Your task to perform on an android device: open app "YouTube Kids" (install if not already installed) and go to login screen Image 0: 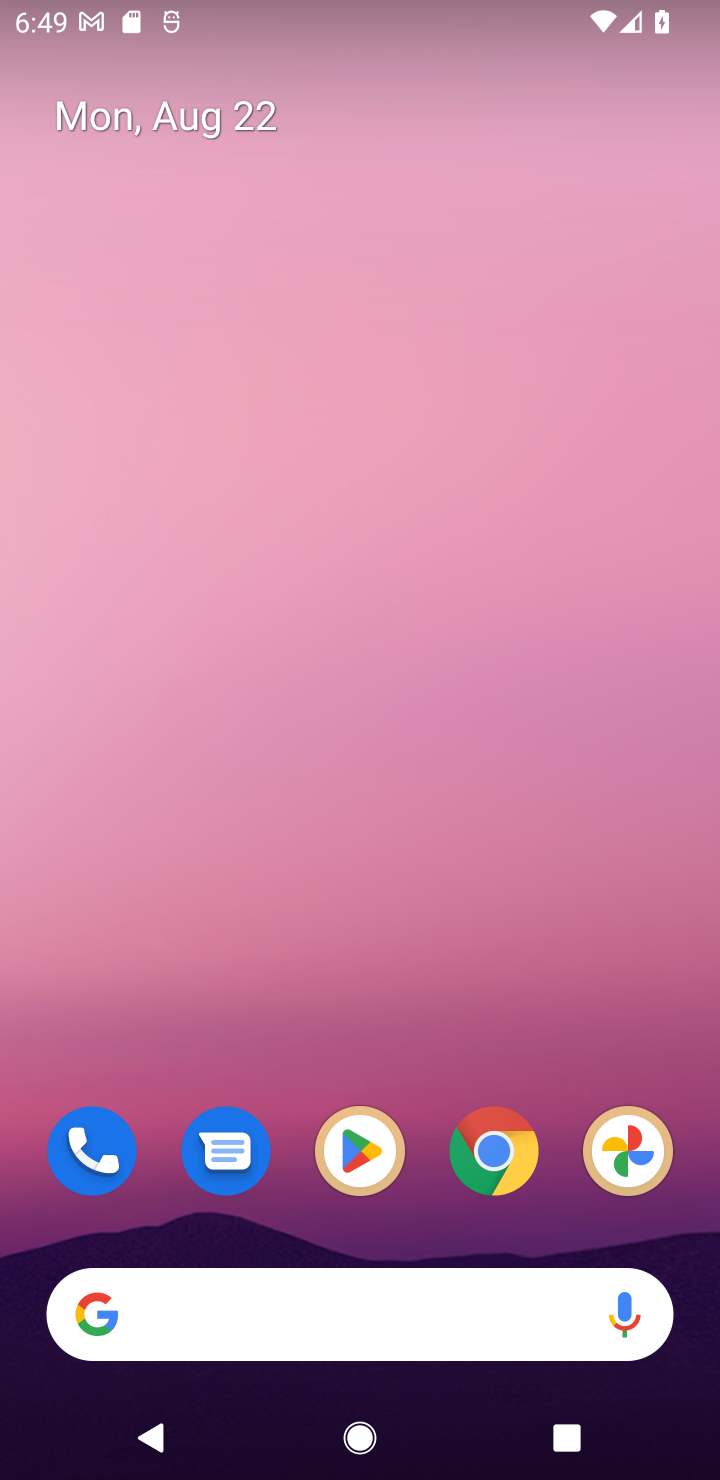
Step 0: click (366, 1149)
Your task to perform on an android device: open app "YouTube Kids" (install if not already installed) and go to login screen Image 1: 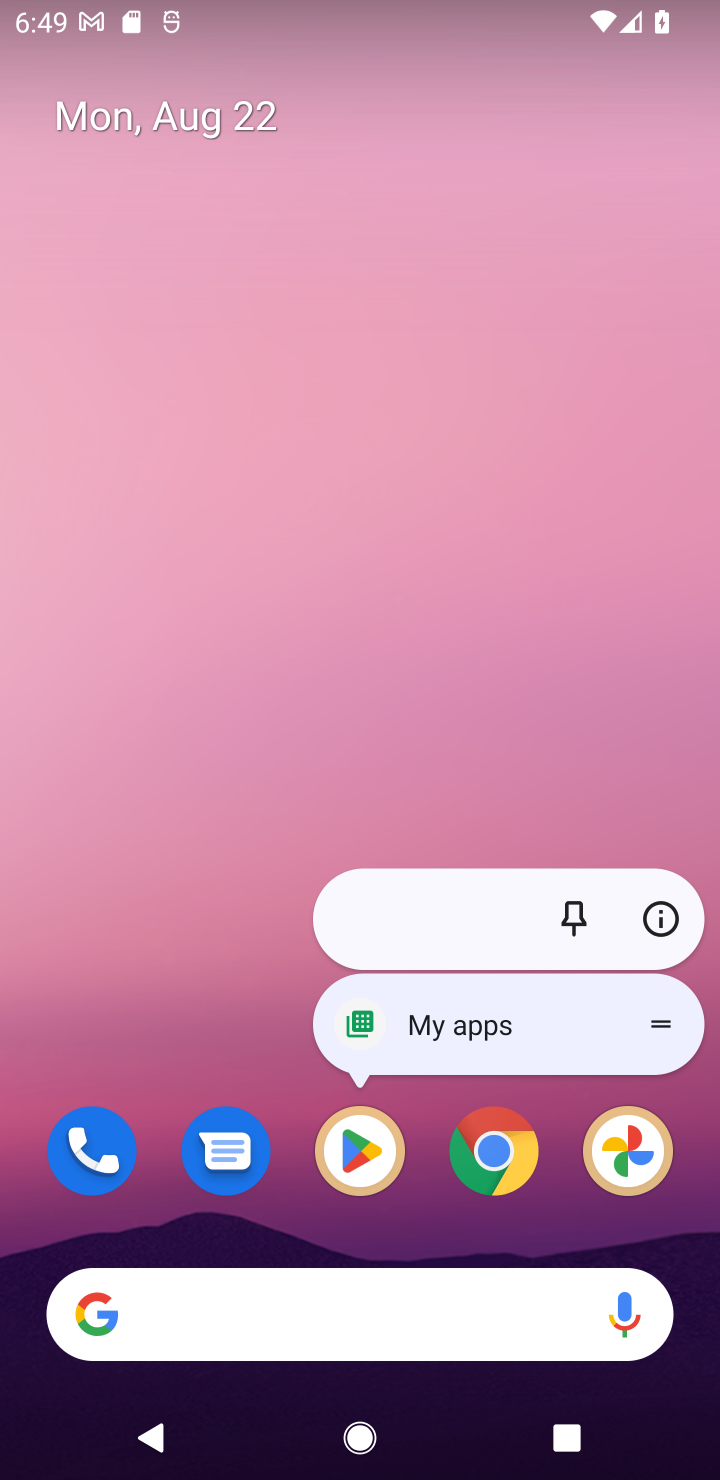
Step 1: click (363, 1153)
Your task to perform on an android device: open app "YouTube Kids" (install if not already installed) and go to login screen Image 2: 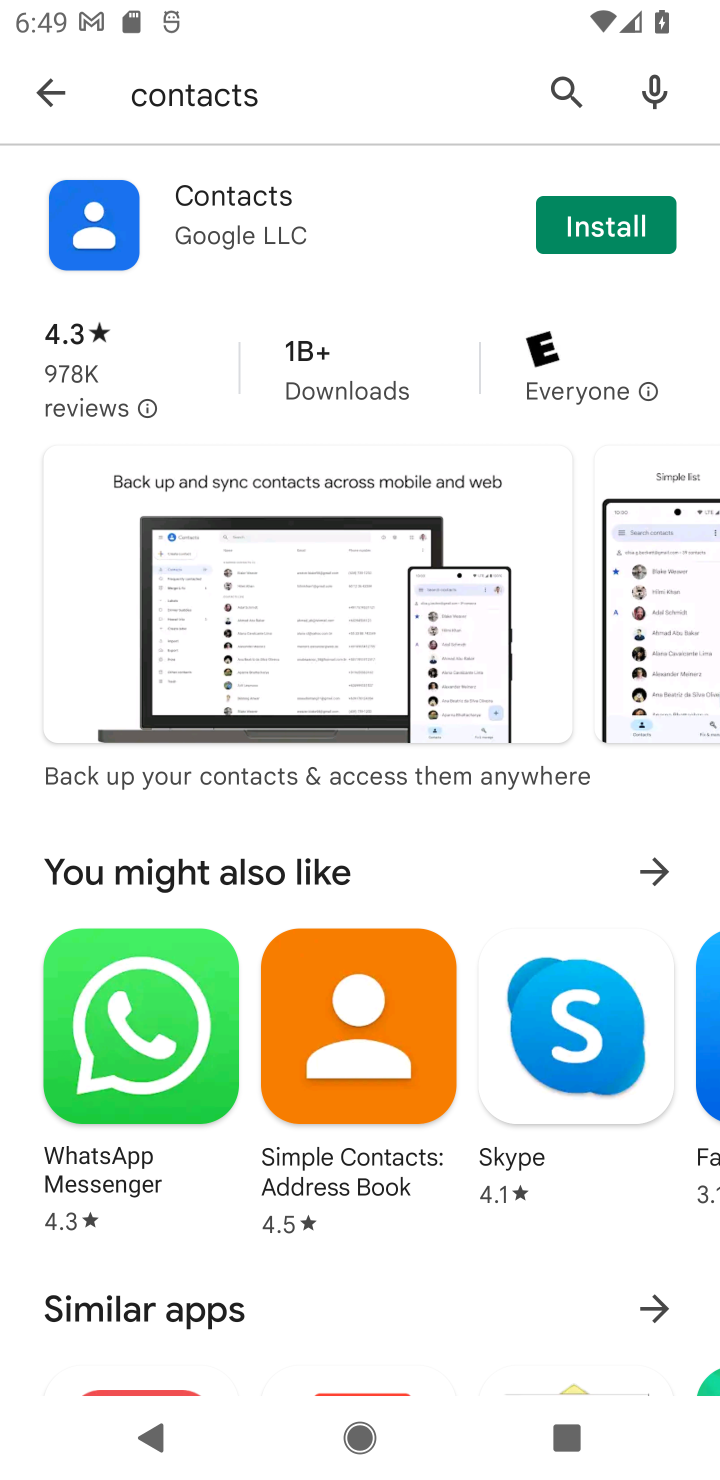
Step 2: click (560, 74)
Your task to perform on an android device: open app "YouTube Kids" (install if not already installed) and go to login screen Image 3: 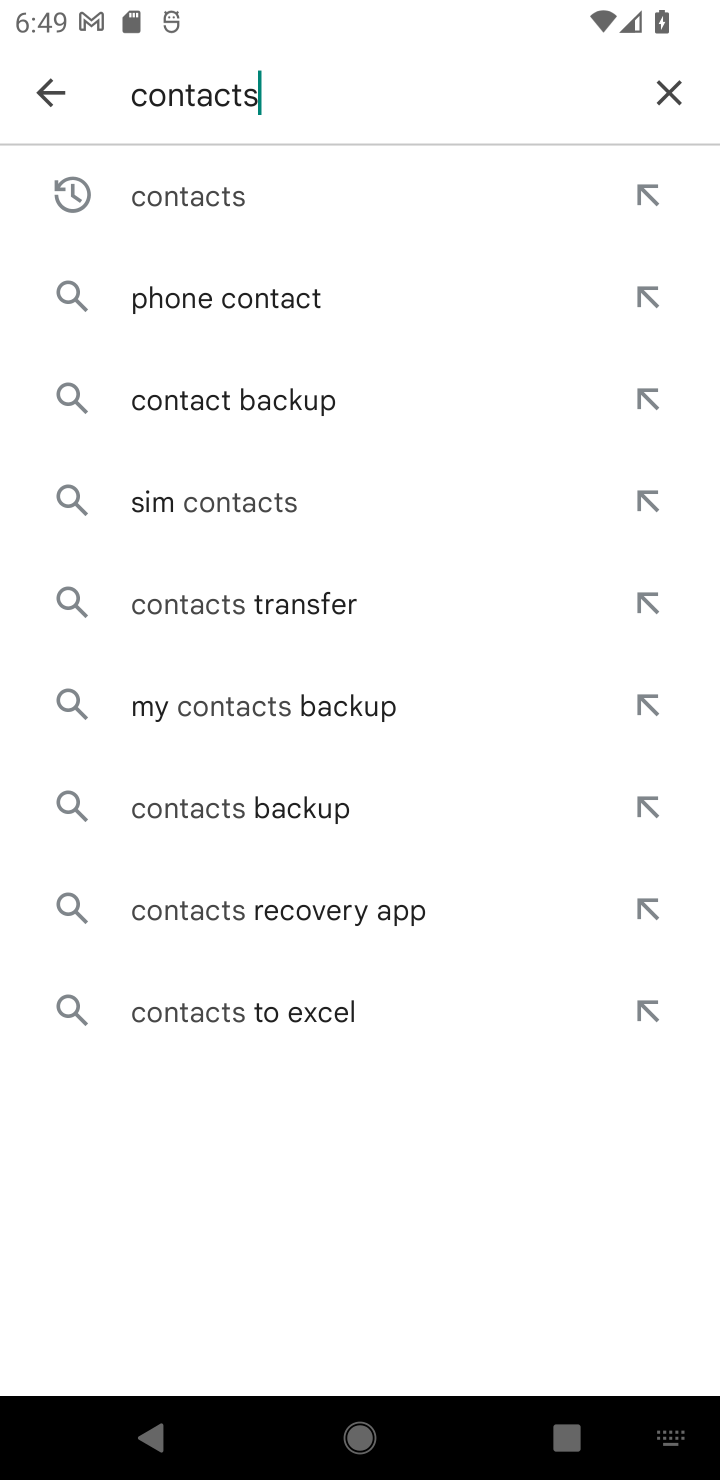
Step 3: click (661, 74)
Your task to perform on an android device: open app "YouTube Kids" (install if not already installed) and go to login screen Image 4: 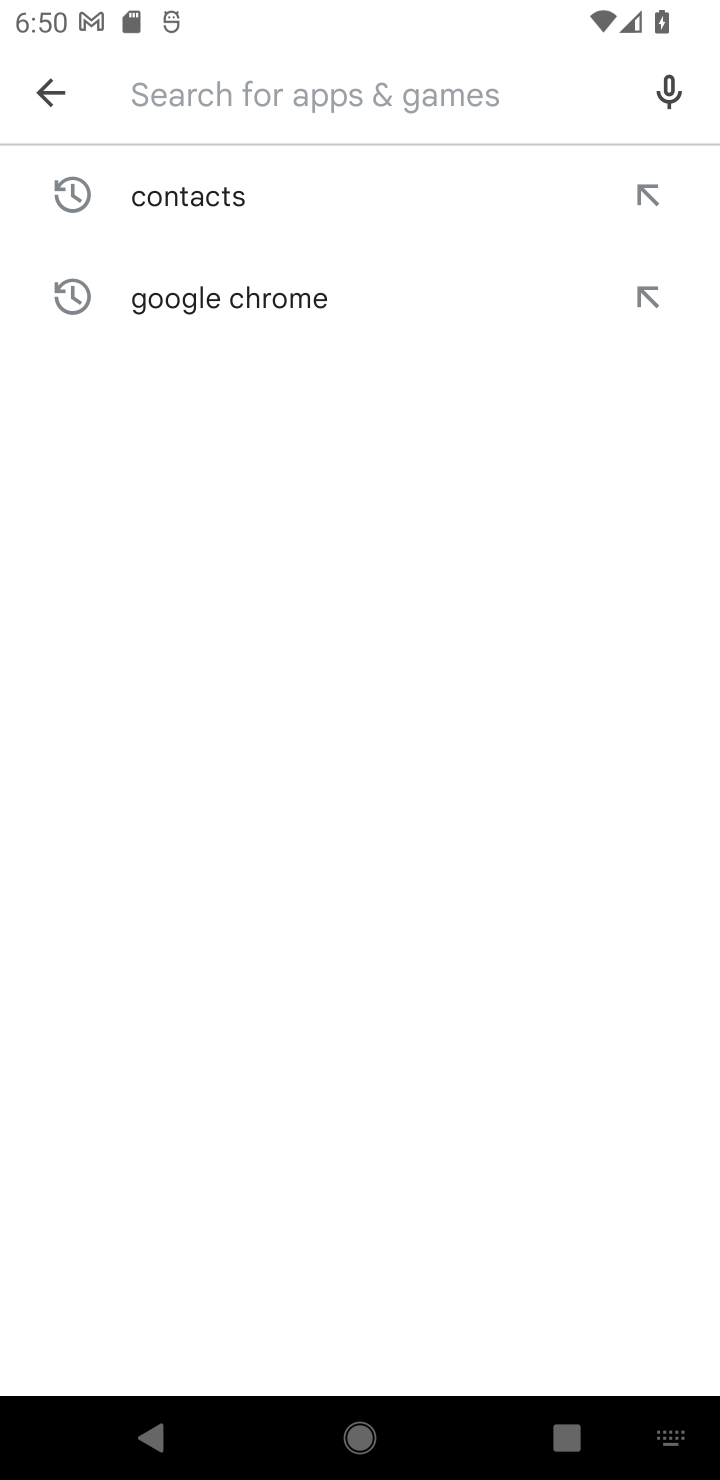
Step 4: type "YouTube Kids"
Your task to perform on an android device: open app "YouTube Kids" (install if not already installed) and go to login screen Image 5: 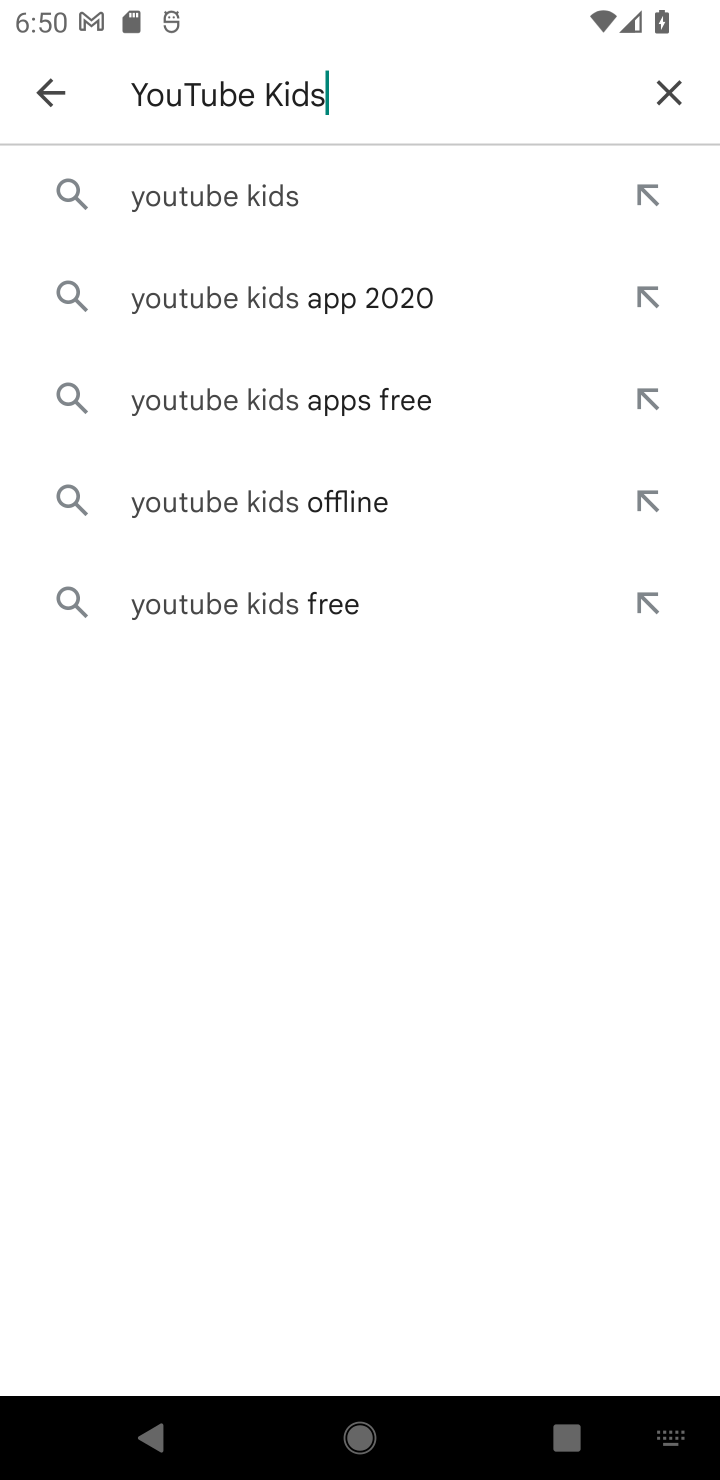
Step 5: click (235, 195)
Your task to perform on an android device: open app "YouTube Kids" (install if not already installed) and go to login screen Image 6: 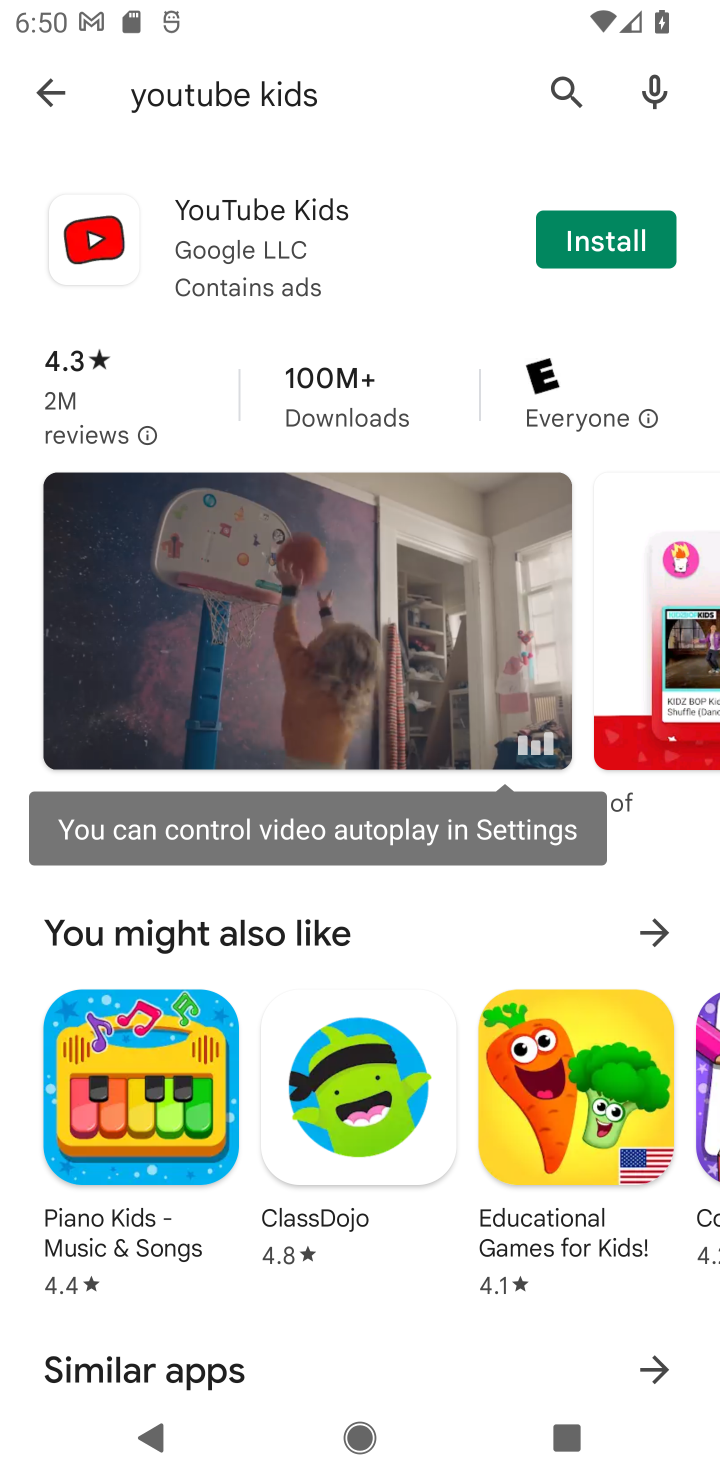
Step 6: click (618, 242)
Your task to perform on an android device: open app "YouTube Kids" (install if not already installed) and go to login screen Image 7: 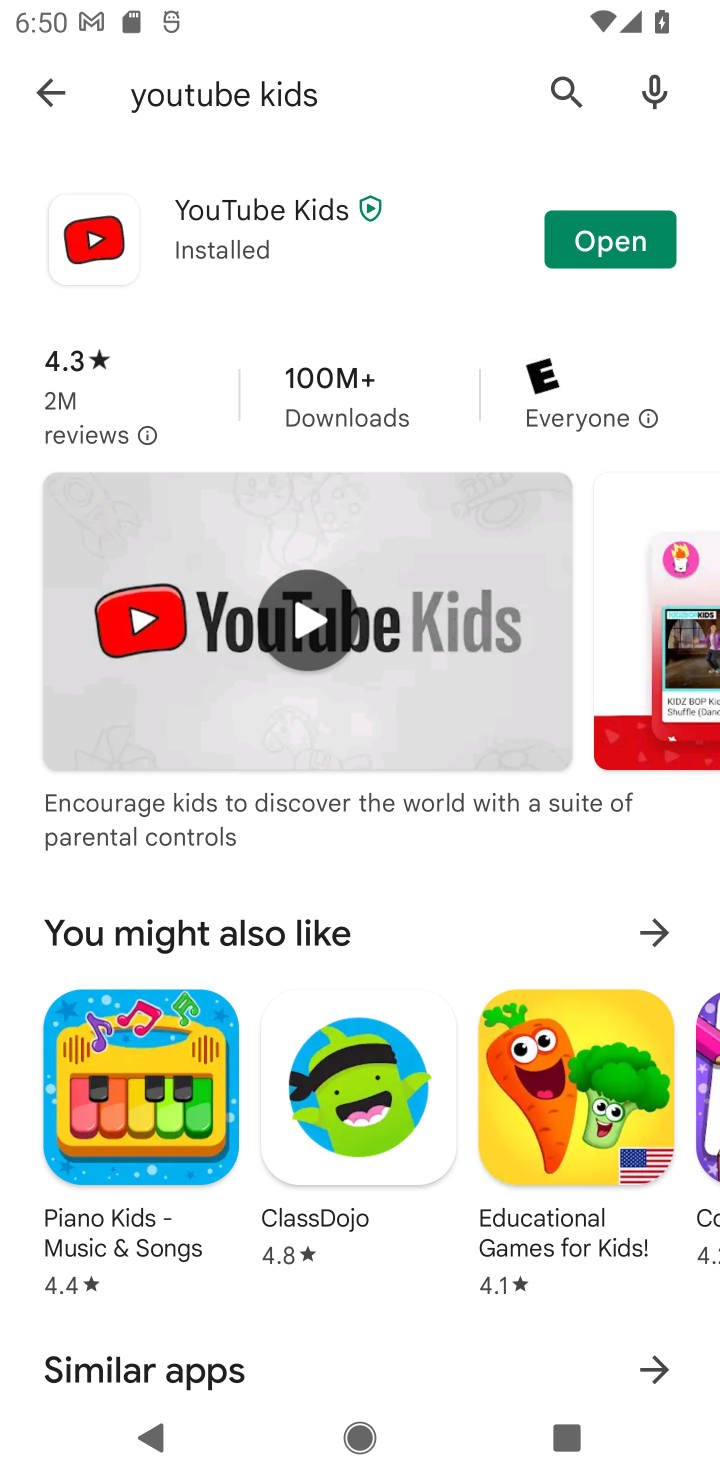
Step 7: click (632, 234)
Your task to perform on an android device: open app "YouTube Kids" (install if not already installed) and go to login screen Image 8: 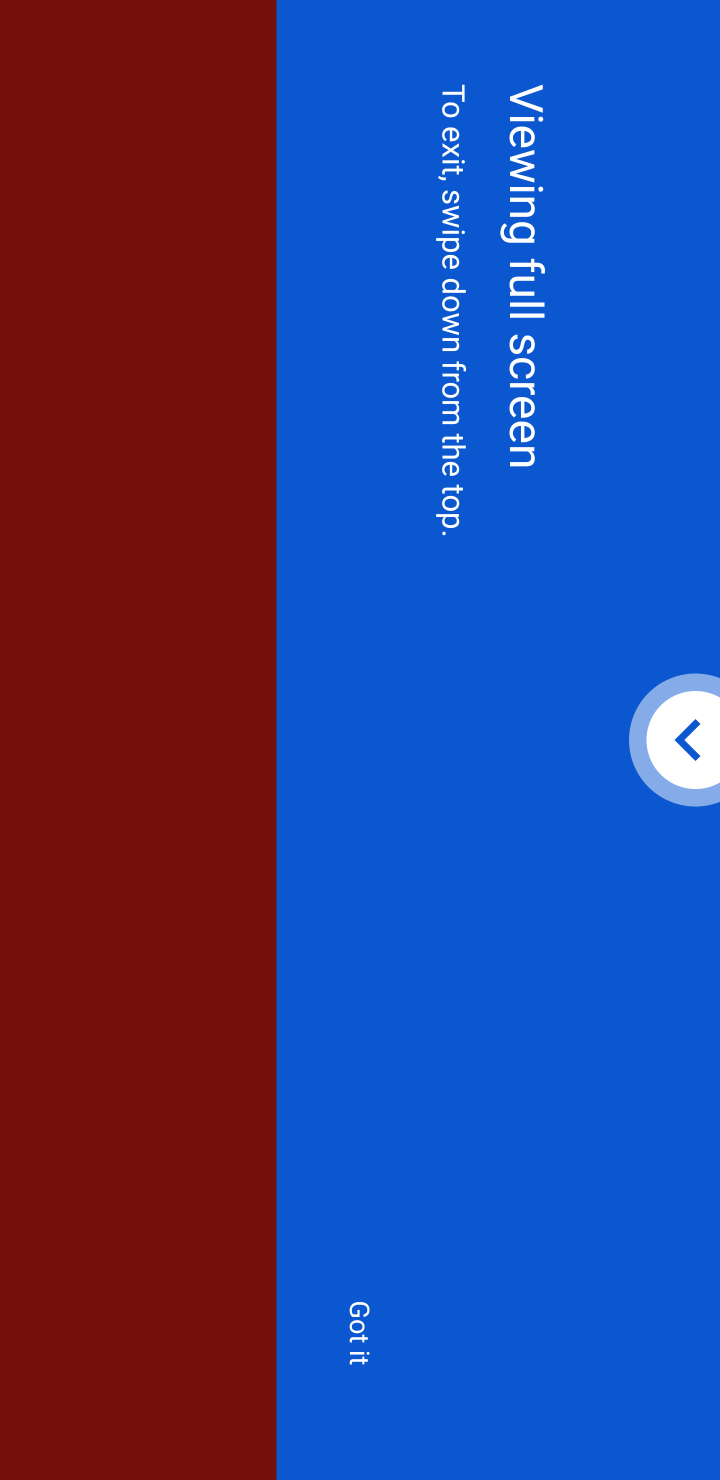
Step 8: click (354, 1318)
Your task to perform on an android device: open app "YouTube Kids" (install if not already installed) and go to login screen Image 9: 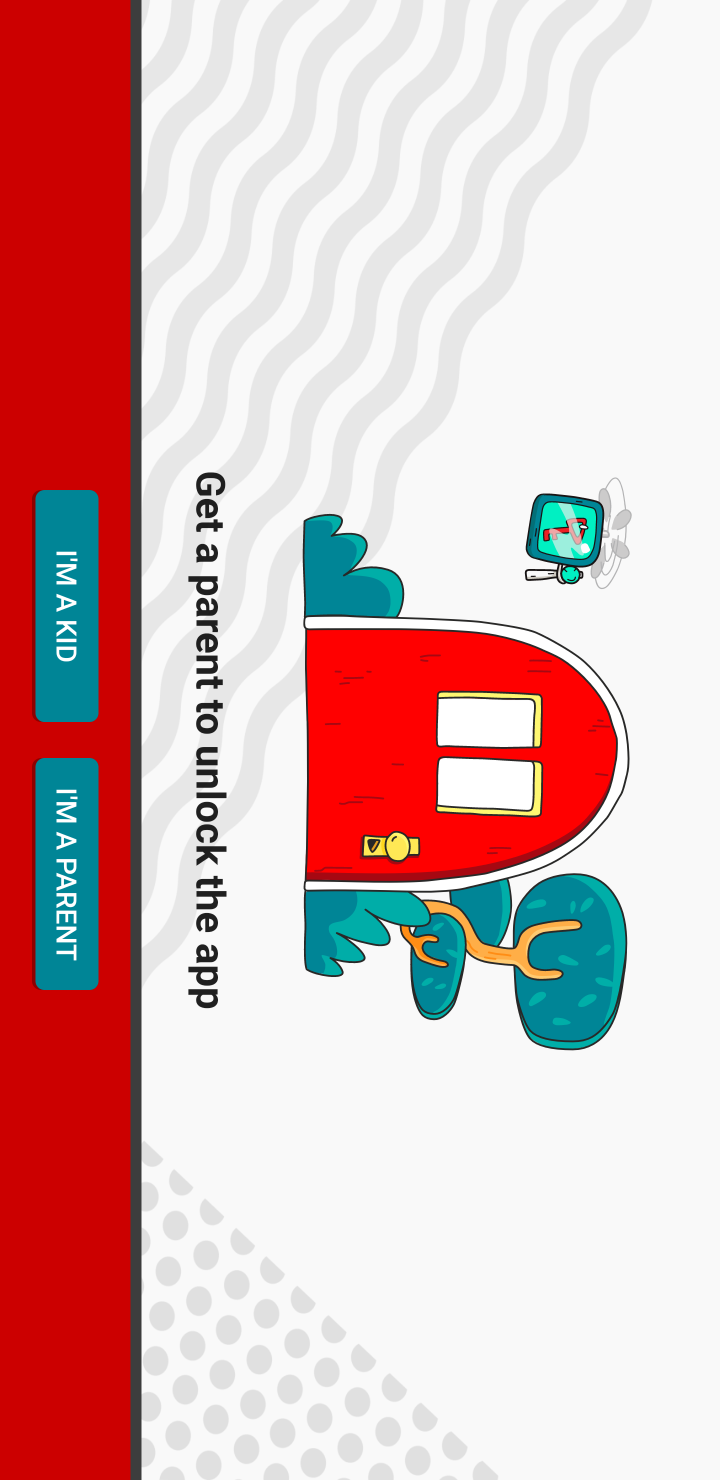
Step 9: task complete